Your task to perform on an android device: Go to network settings Image 0: 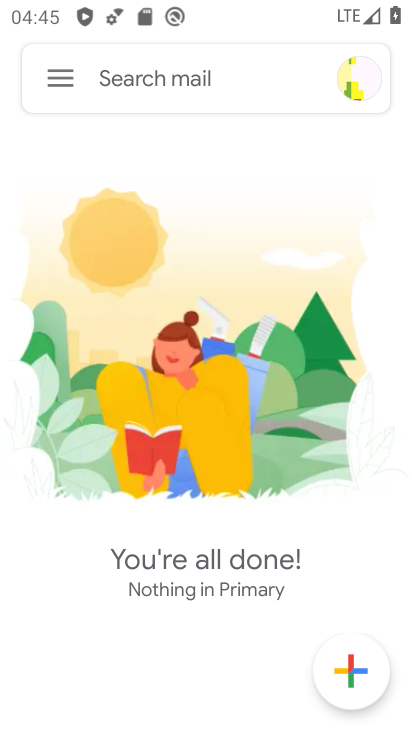
Step 0: press home button
Your task to perform on an android device: Go to network settings Image 1: 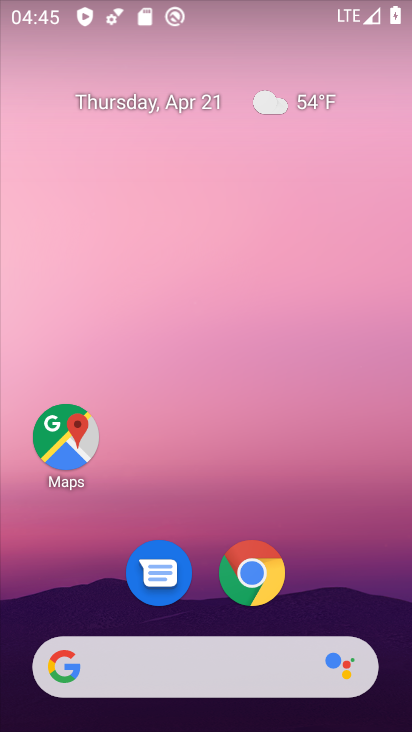
Step 1: drag from (389, 625) to (310, 168)
Your task to perform on an android device: Go to network settings Image 2: 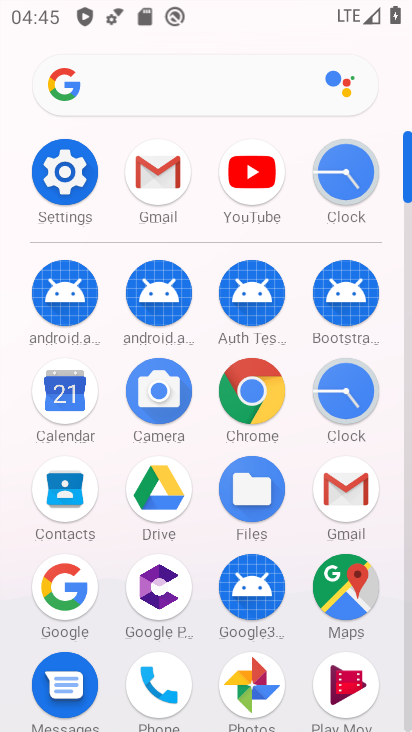
Step 2: click (407, 710)
Your task to perform on an android device: Go to network settings Image 3: 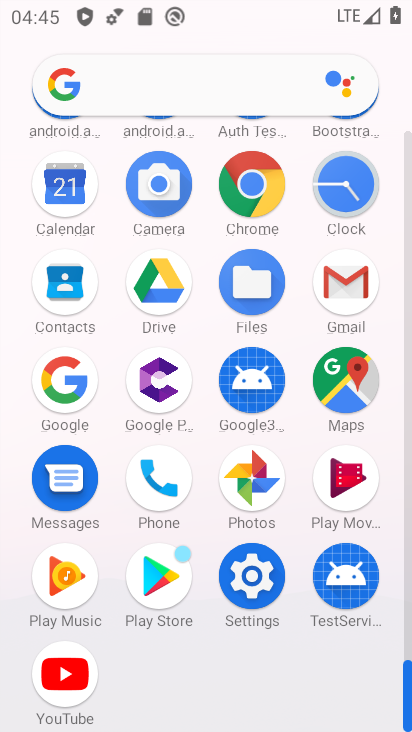
Step 3: click (249, 573)
Your task to perform on an android device: Go to network settings Image 4: 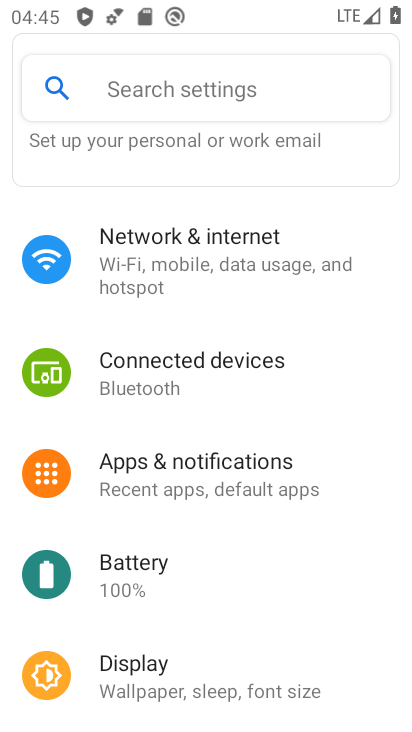
Step 4: click (159, 251)
Your task to perform on an android device: Go to network settings Image 5: 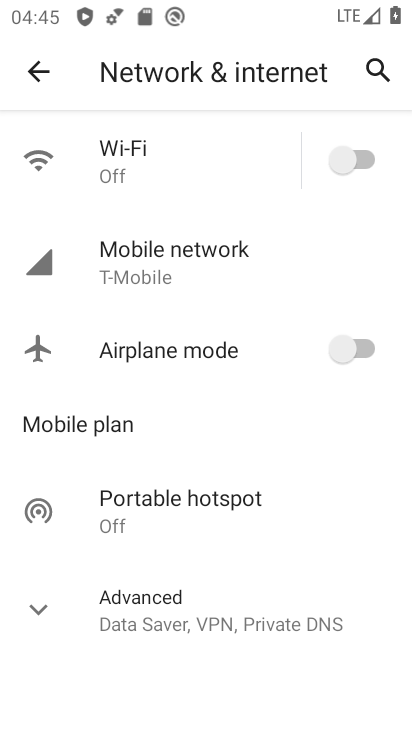
Step 5: click (138, 254)
Your task to perform on an android device: Go to network settings Image 6: 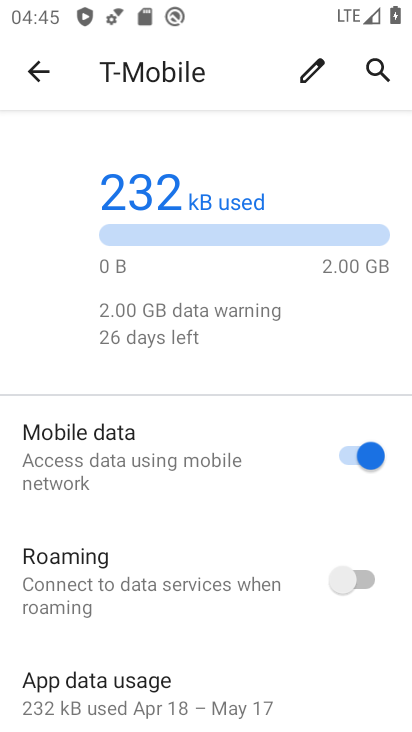
Step 6: drag from (220, 464) to (312, 112)
Your task to perform on an android device: Go to network settings Image 7: 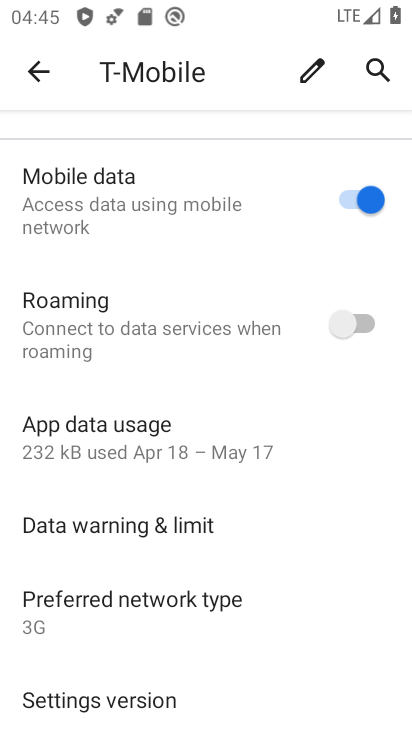
Step 7: drag from (321, 435) to (324, 238)
Your task to perform on an android device: Go to network settings Image 8: 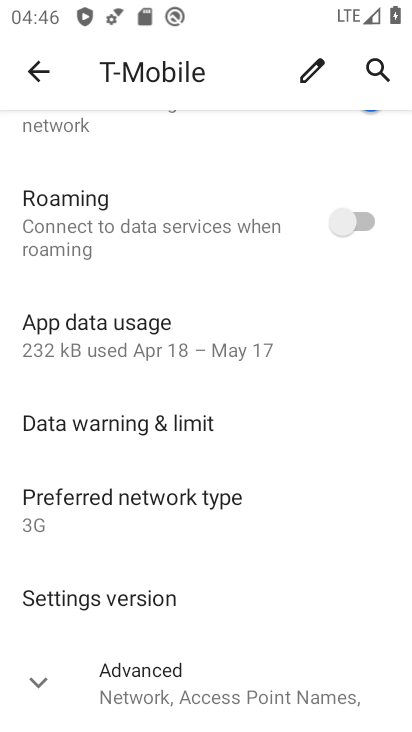
Step 8: click (42, 689)
Your task to perform on an android device: Go to network settings Image 9: 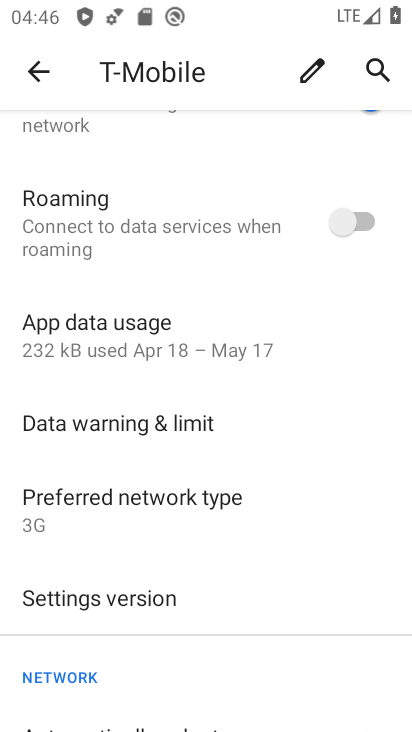
Step 9: task complete